Your task to perform on an android device: turn off smart reply in the gmail app Image 0: 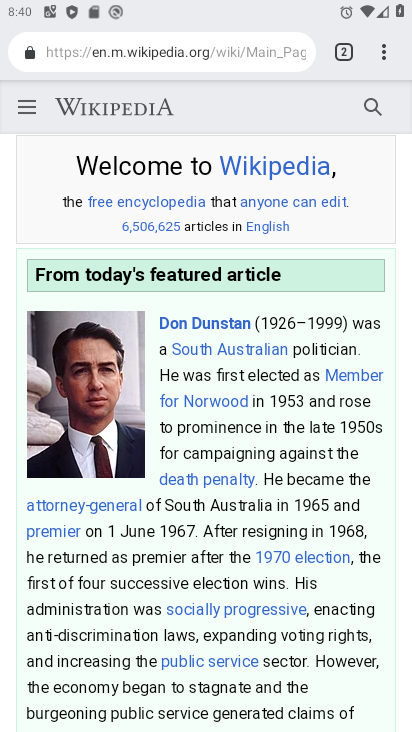
Step 0: press home button
Your task to perform on an android device: turn off smart reply in the gmail app Image 1: 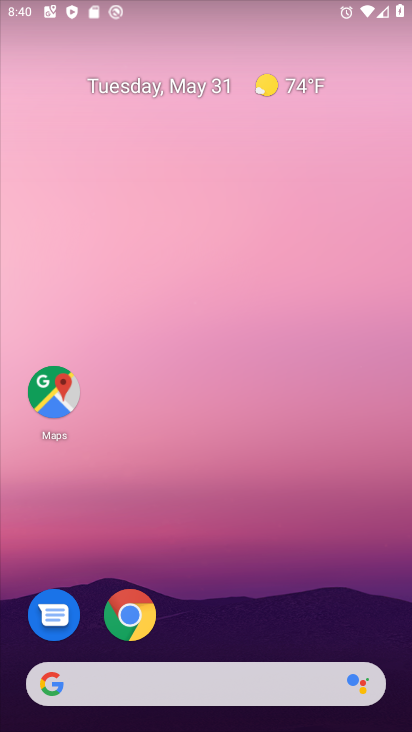
Step 1: drag from (226, 641) to (235, 223)
Your task to perform on an android device: turn off smart reply in the gmail app Image 2: 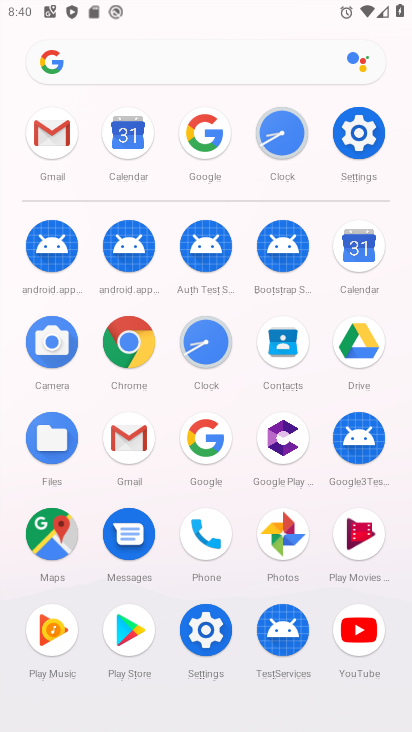
Step 2: click (70, 134)
Your task to perform on an android device: turn off smart reply in the gmail app Image 3: 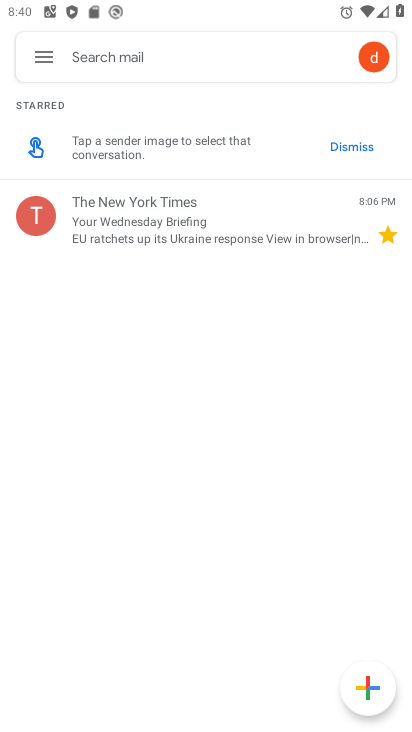
Step 3: click (53, 66)
Your task to perform on an android device: turn off smart reply in the gmail app Image 4: 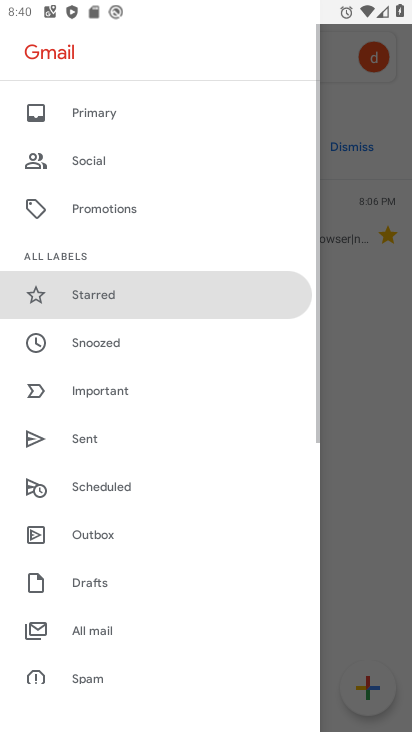
Step 4: drag from (150, 667) to (155, 242)
Your task to perform on an android device: turn off smart reply in the gmail app Image 5: 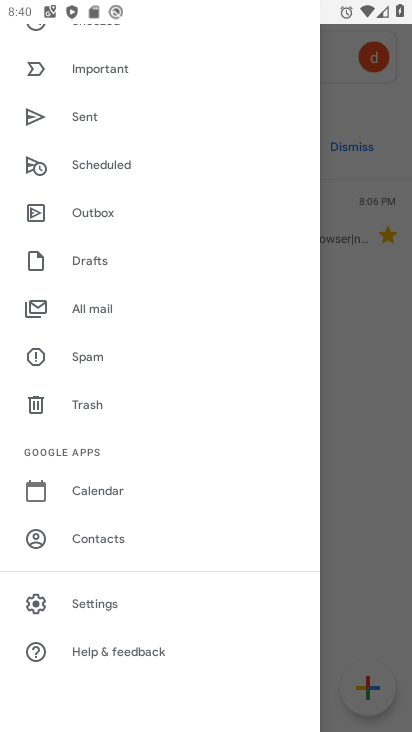
Step 5: click (103, 603)
Your task to perform on an android device: turn off smart reply in the gmail app Image 6: 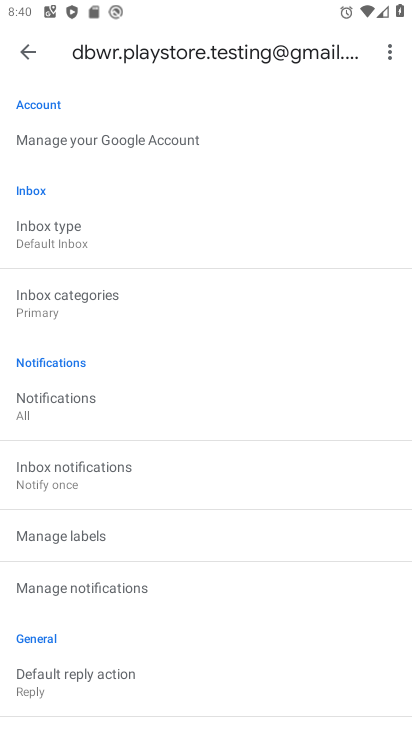
Step 6: drag from (126, 614) to (138, 282)
Your task to perform on an android device: turn off smart reply in the gmail app Image 7: 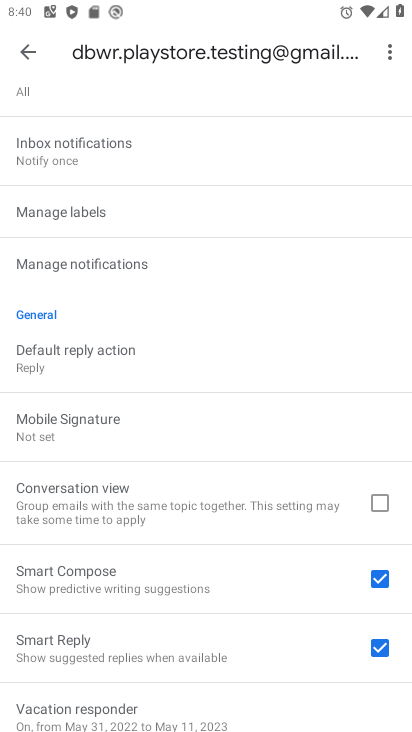
Step 7: drag from (181, 607) to (213, 388)
Your task to perform on an android device: turn off smart reply in the gmail app Image 8: 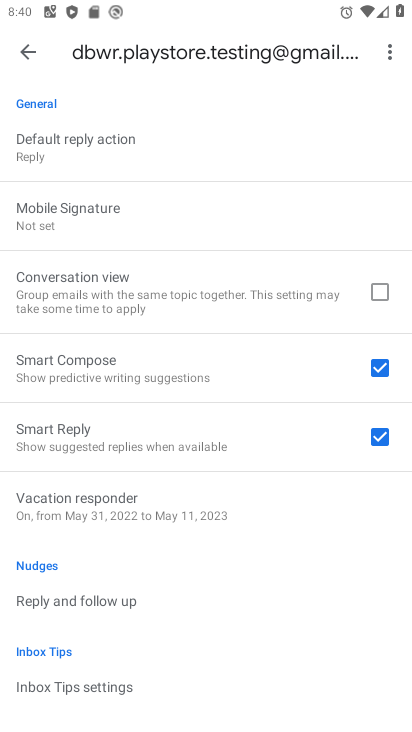
Step 8: click (383, 440)
Your task to perform on an android device: turn off smart reply in the gmail app Image 9: 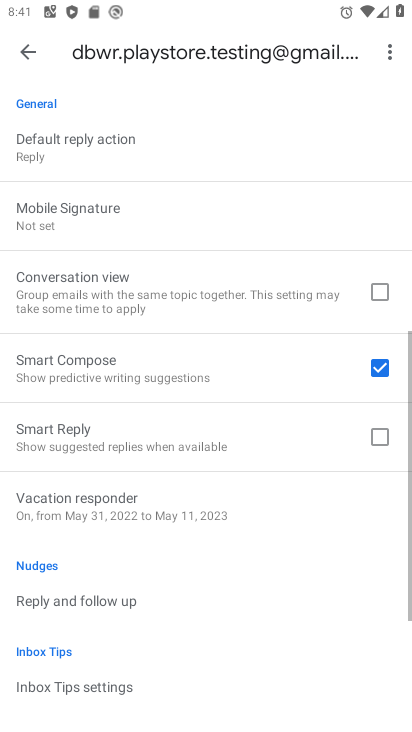
Step 9: task complete